Your task to perform on an android device: all mails in gmail Image 0: 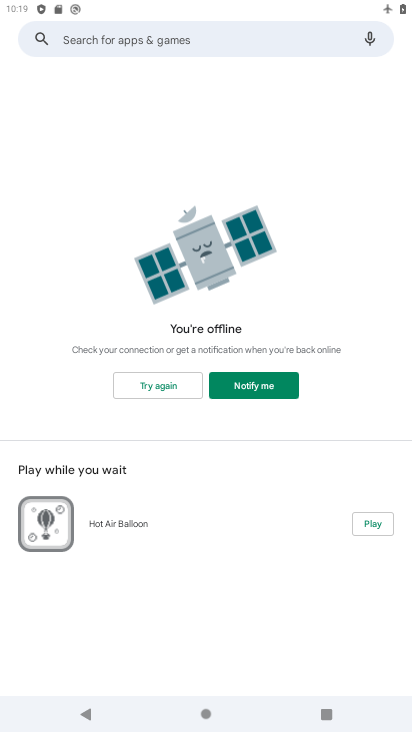
Step 0: press home button
Your task to perform on an android device: all mails in gmail Image 1: 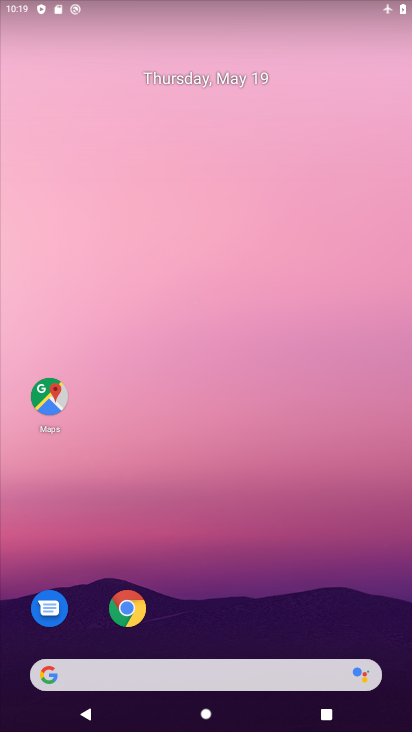
Step 1: drag from (374, 602) to (353, 319)
Your task to perform on an android device: all mails in gmail Image 2: 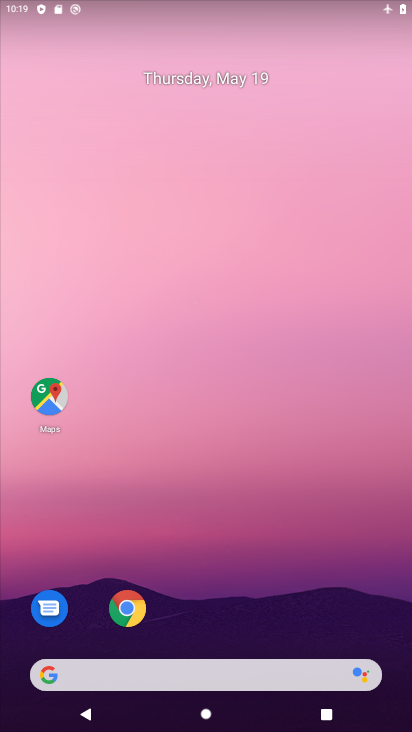
Step 2: drag from (371, 655) to (338, 136)
Your task to perform on an android device: all mails in gmail Image 3: 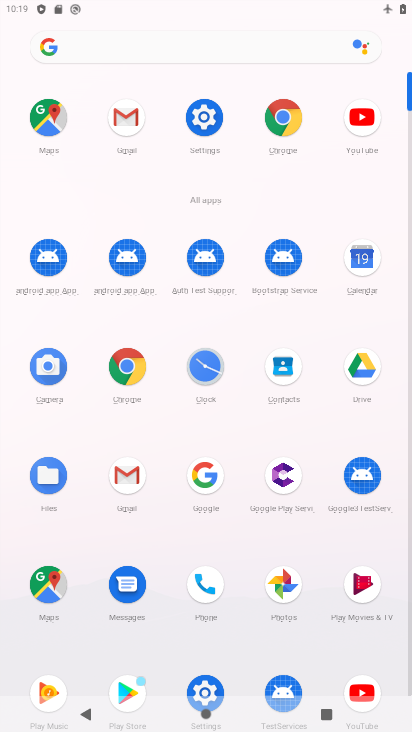
Step 3: click (133, 473)
Your task to perform on an android device: all mails in gmail Image 4: 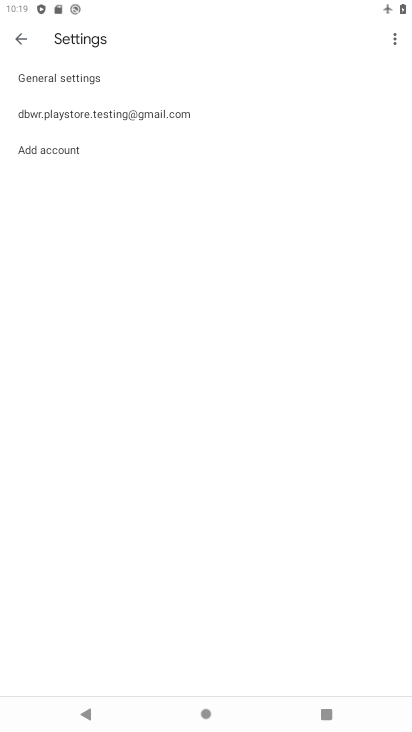
Step 4: click (20, 44)
Your task to perform on an android device: all mails in gmail Image 5: 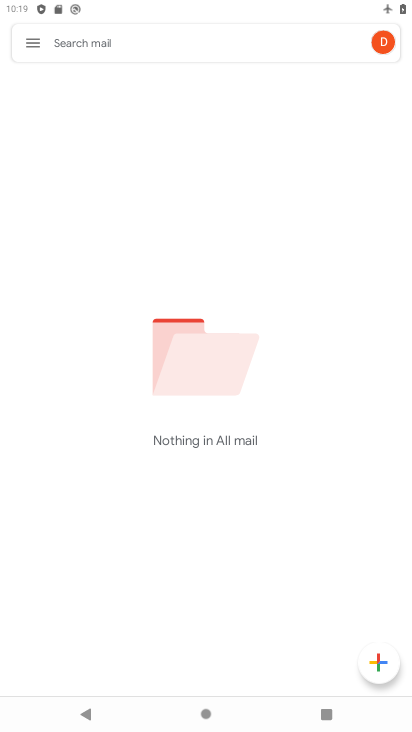
Step 5: click (27, 44)
Your task to perform on an android device: all mails in gmail Image 6: 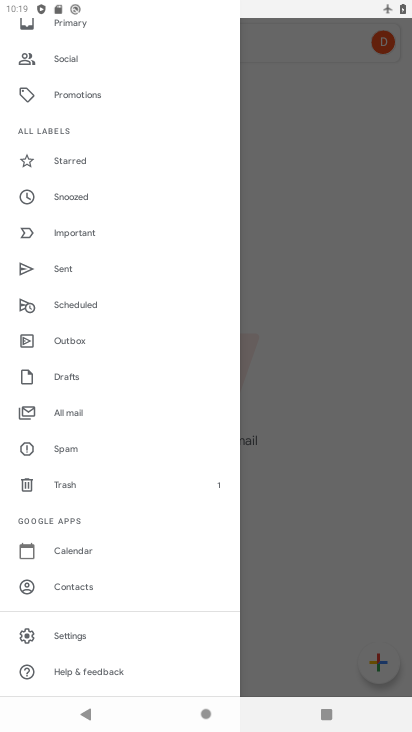
Step 6: click (61, 408)
Your task to perform on an android device: all mails in gmail Image 7: 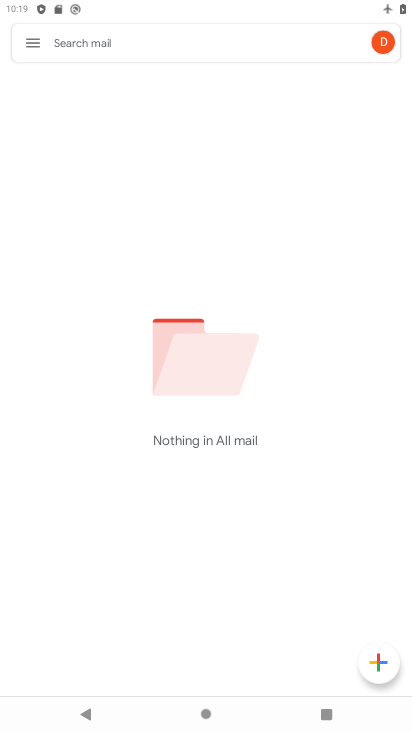
Step 7: task complete